Your task to perform on an android device: Search for flights from NYC to San Francisco Image 0: 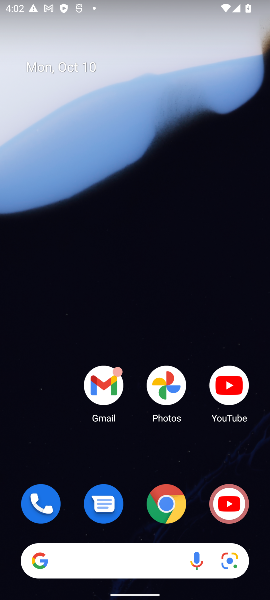
Step 0: drag from (159, 466) to (187, 101)
Your task to perform on an android device: Search for flights from NYC to San Francisco Image 1: 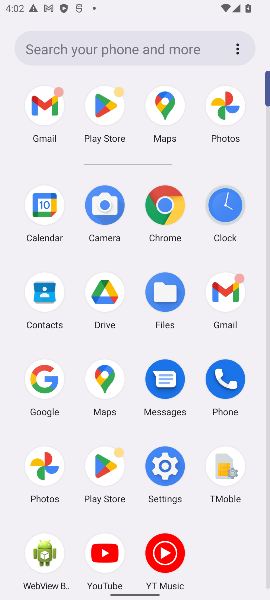
Step 1: click (162, 206)
Your task to perform on an android device: Search for flights from NYC to San Francisco Image 2: 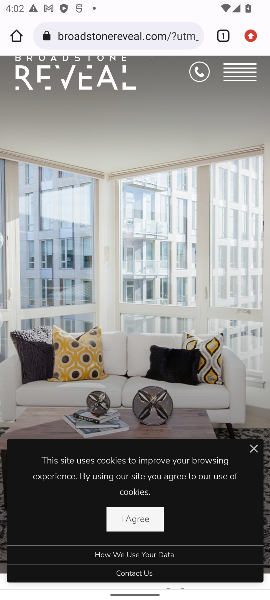
Step 2: click (153, 33)
Your task to perform on an android device: Search for flights from NYC to San Francisco Image 3: 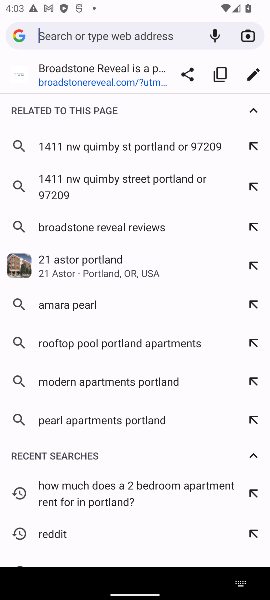
Step 3: type "flights from NYC to San Francisco"
Your task to perform on an android device: Search for flights from NYC to San Francisco Image 4: 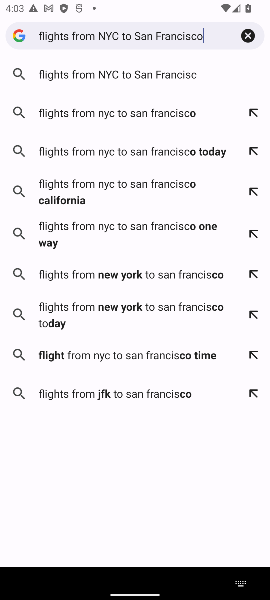
Step 4: press enter
Your task to perform on an android device: Search for flights from NYC to San Francisco Image 5: 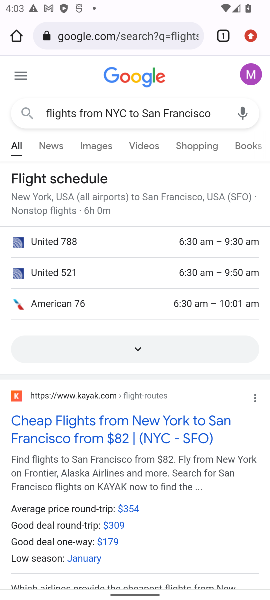
Step 5: task complete